Your task to perform on an android device: allow cookies in the chrome app Image 0: 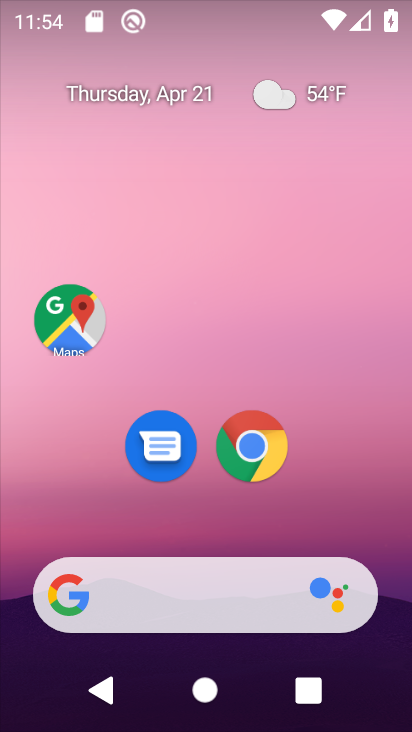
Step 0: click (257, 460)
Your task to perform on an android device: allow cookies in the chrome app Image 1: 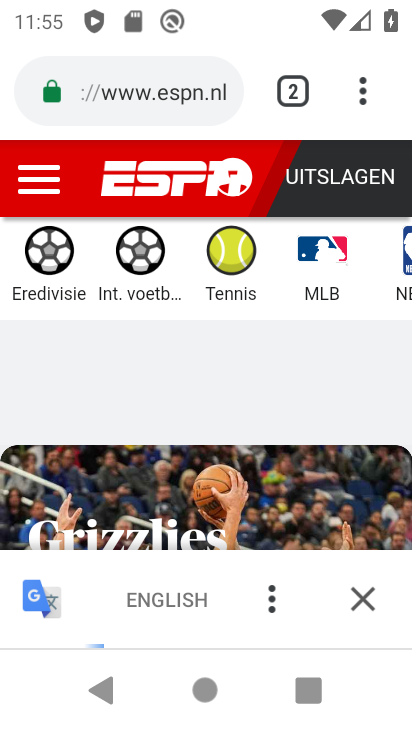
Step 1: click (354, 116)
Your task to perform on an android device: allow cookies in the chrome app Image 2: 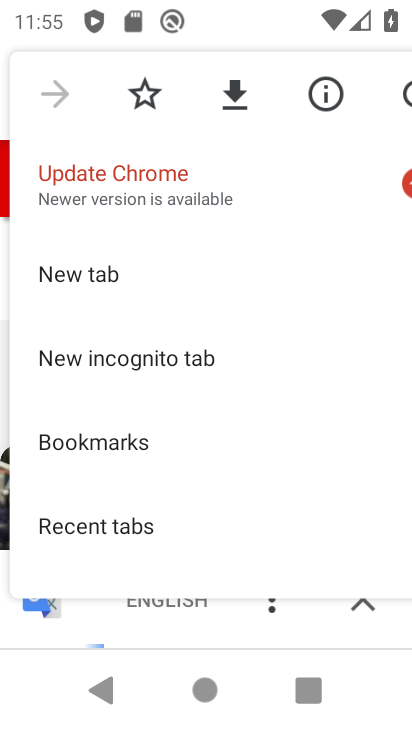
Step 2: drag from (273, 470) to (235, 198)
Your task to perform on an android device: allow cookies in the chrome app Image 3: 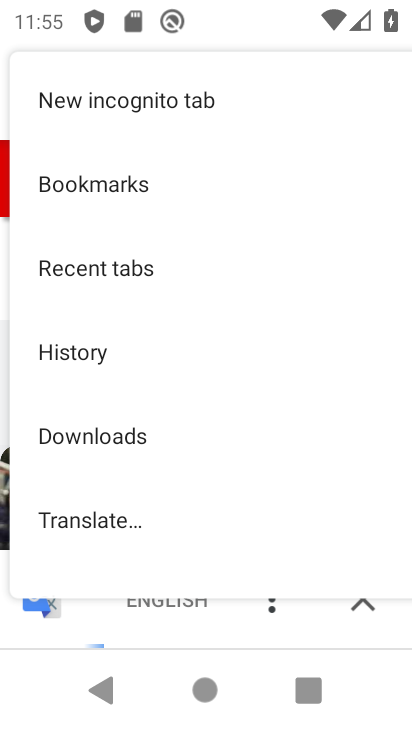
Step 3: drag from (263, 518) to (195, 188)
Your task to perform on an android device: allow cookies in the chrome app Image 4: 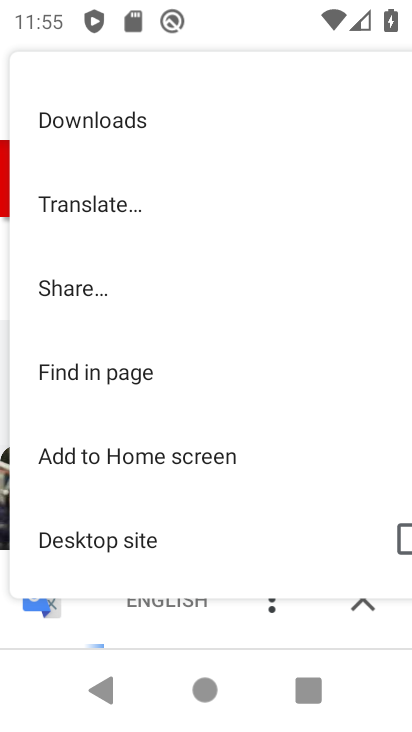
Step 4: drag from (208, 585) to (181, 278)
Your task to perform on an android device: allow cookies in the chrome app Image 5: 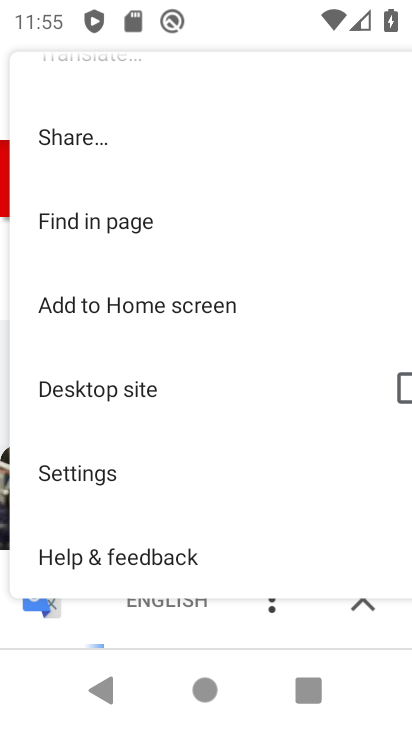
Step 5: click (209, 470)
Your task to perform on an android device: allow cookies in the chrome app Image 6: 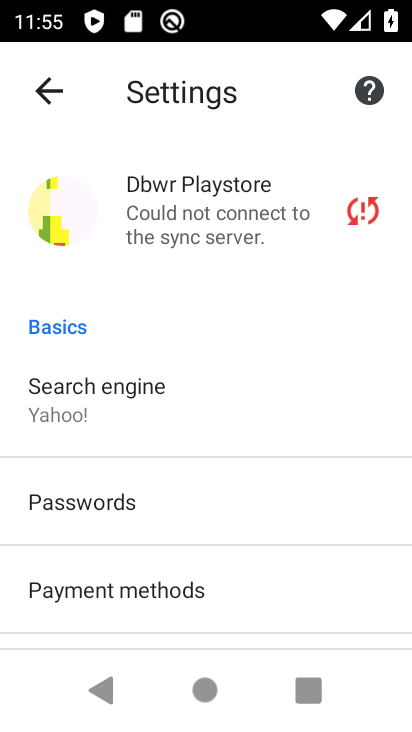
Step 6: drag from (257, 620) to (250, 367)
Your task to perform on an android device: allow cookies in the chrome app Image 7: 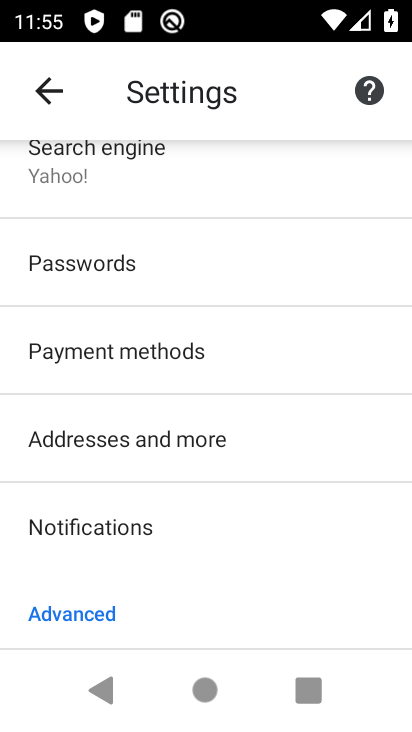
Step 7: drag from (277, 549) to (212, 319)
Your task to perform on an android device: allow cookies in the chrome app Image 8: 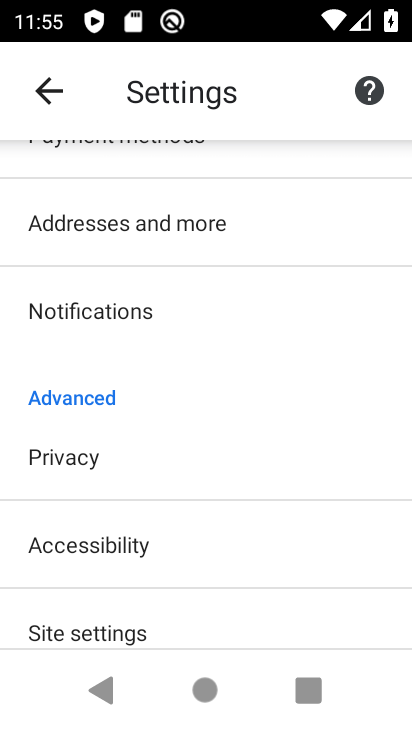
Step 8: click (256, 640)
Your task to perform on an android device: allow cookies in the chrome app Image 9: 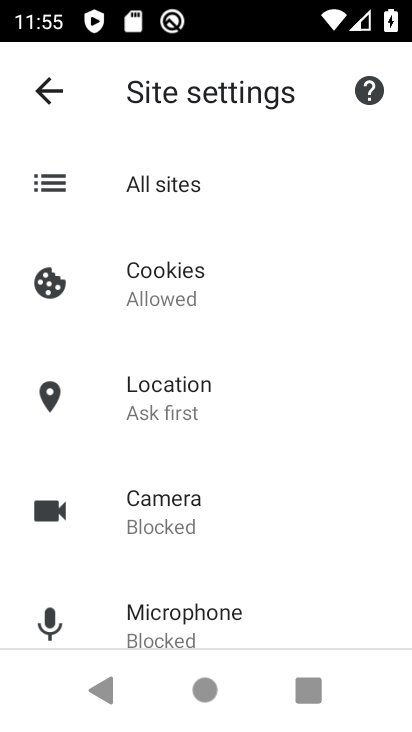
Step 9: click (242, 272)
Your task to perform on an android device: allow cookies in the chrome app Image 10: 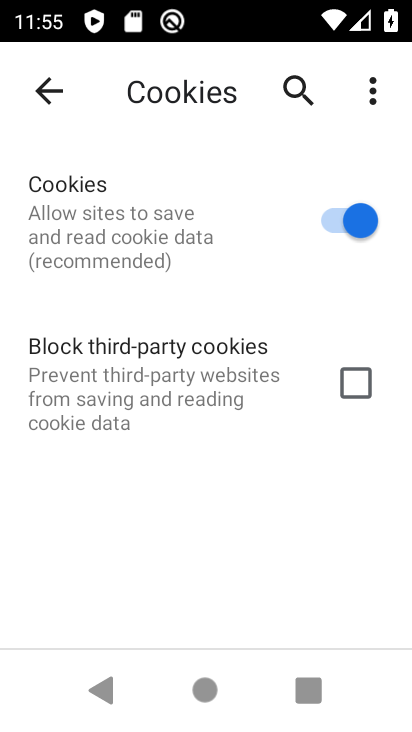
Step 10: task complete